Your task to perform on an android device: open a bookmark in the chrome app Image 0: 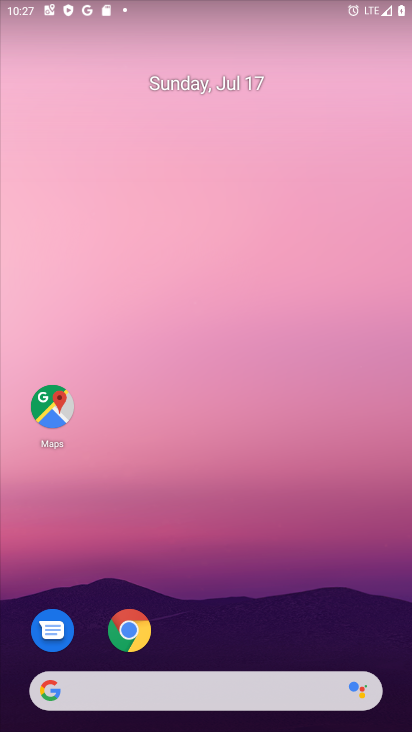
Step 0: click (127, 627)
Your task to perform on an android device: open a bookmark in the chrome app Image 1: 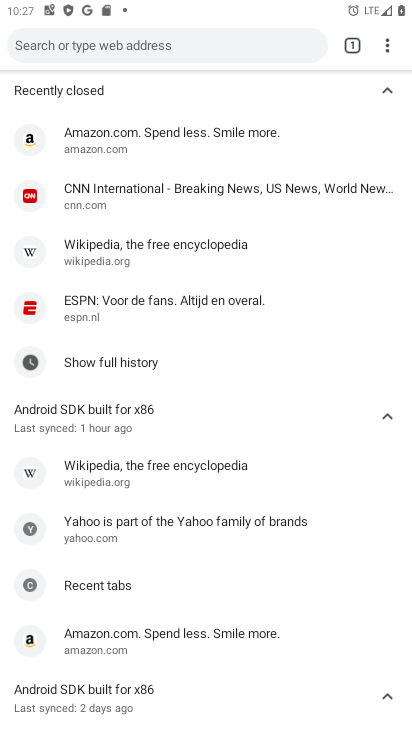
Step 1: click (390, 44)
Your task to perform on an android device: open a bookmark in the chrome app Image 2: 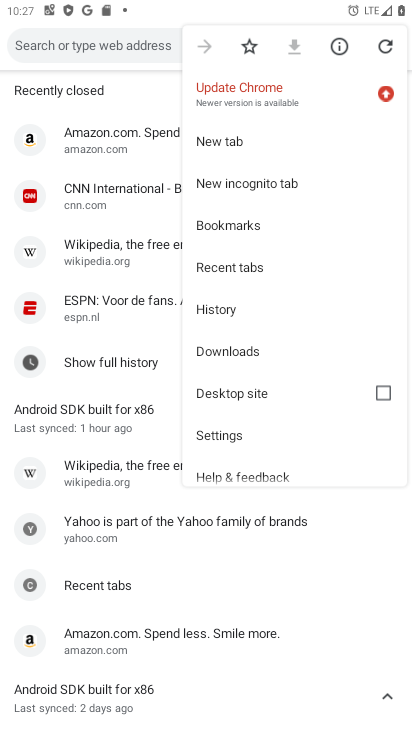
Step 2: click (257, 221)
Your task to perform on an android device: open a bookmark in the chrome app Image 3: 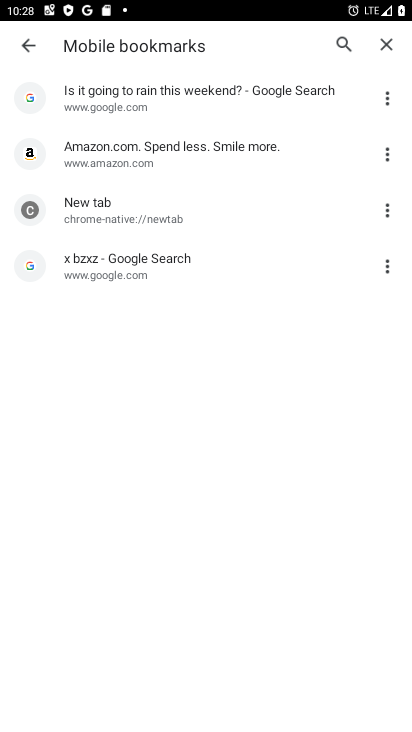
Step 3: task complete